Your task to perform on an android device: check data usage Image 0: 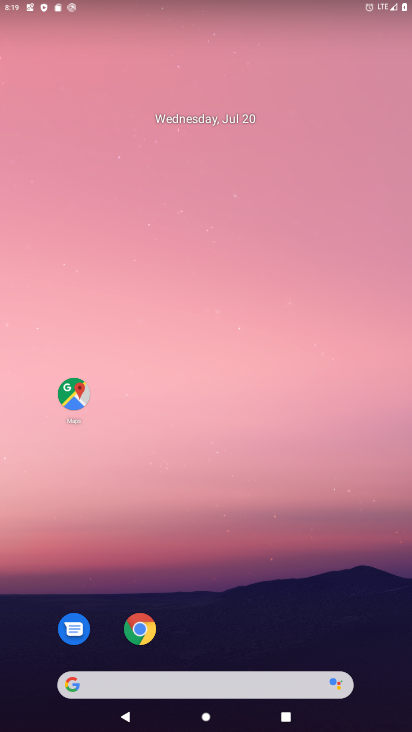
Step 0: drag from (188, 635) to (114, 0)
Your task to perform on an android device: check data usage Image 1: 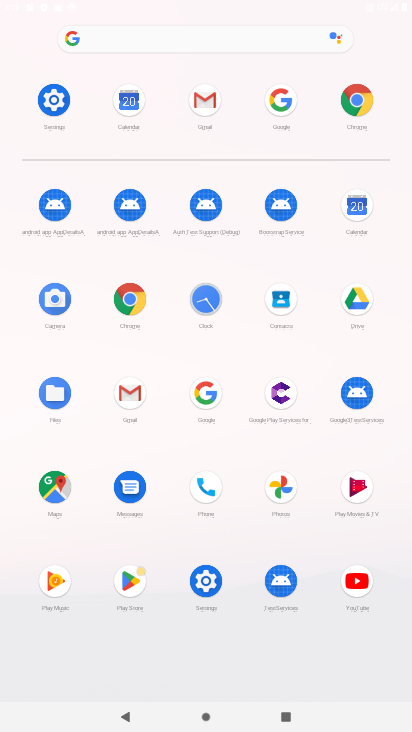
Step 1: click (41, 101)
Your task to perform on an android device: check data usage Image 2: 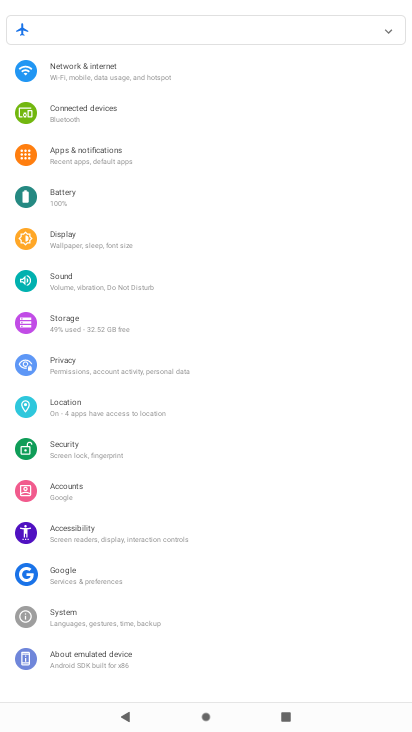
Step 2: click (90, 75)
Your task to perform on an android device: check data usage Image 3: 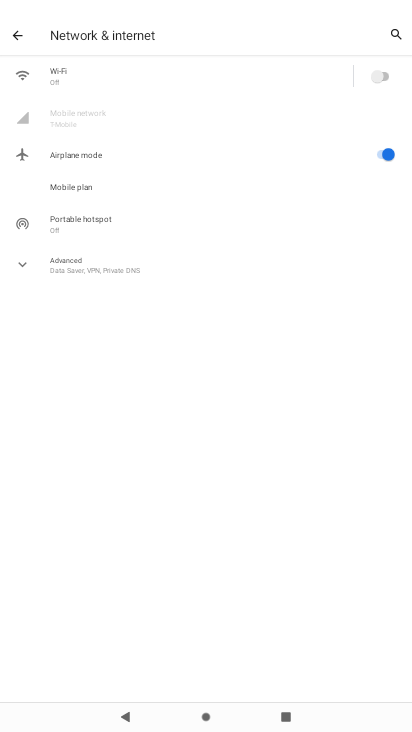
Step 3: click (384, 156)
Your task to perform on an android device: check data usage Image 4: 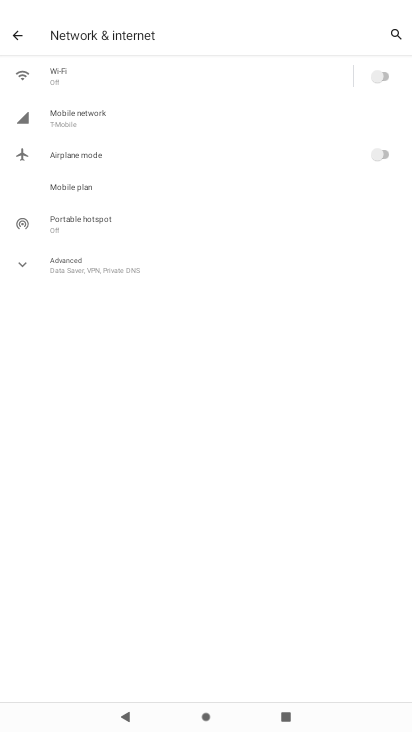
Step 4: click (86, 113)
Your task to perform on an android device: check data usage Image 5: 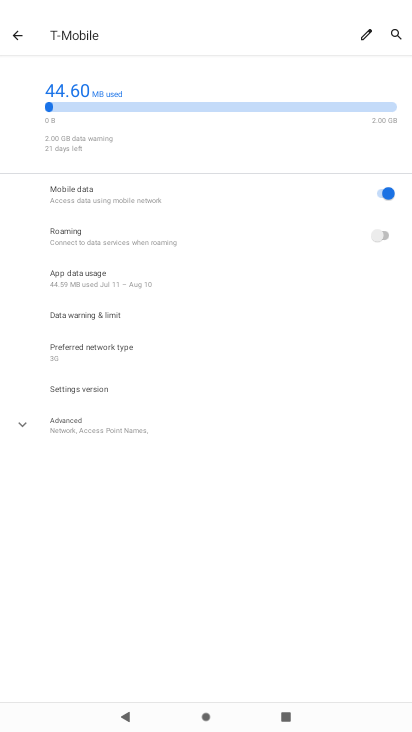
Step 5: task complete